Your task to perform on an android device: Search for Italian restaurants on Maps Image 0: 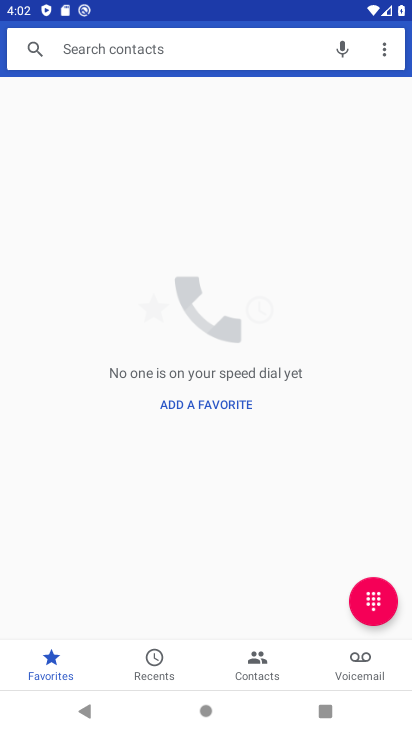
Step 0: press home button
Your task to perform on an android device: Search for Italian restaurants on Maps Image 1: 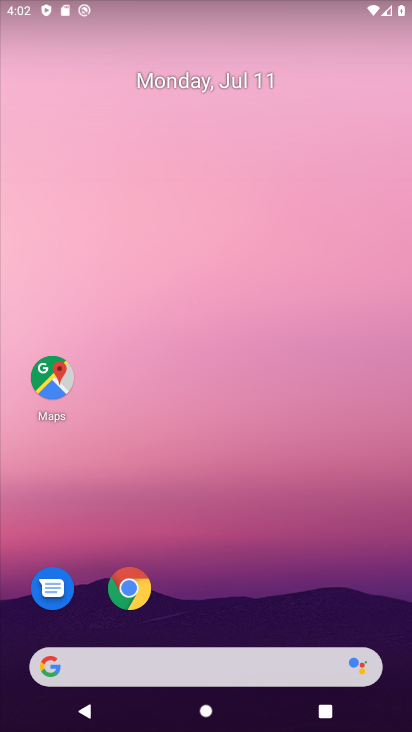
Step 1: click (62, 386)
Your task to perform on an android device: Search for Italian restaurants on Maps Image 2: 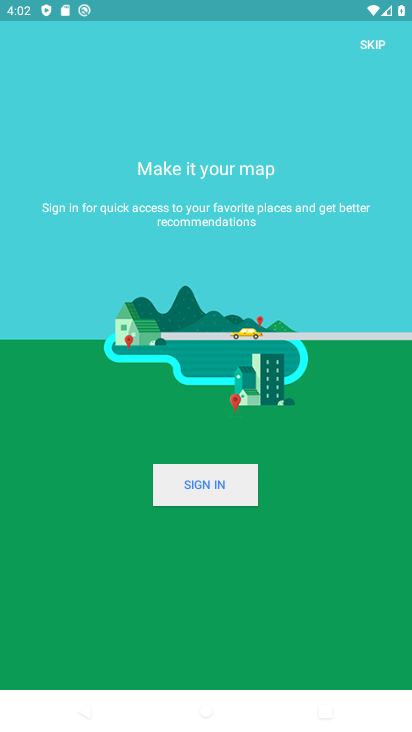
Step 2: click (371, 42)
Your task to perform on an android device: Search for Italian restaurants on Maps Image 3: 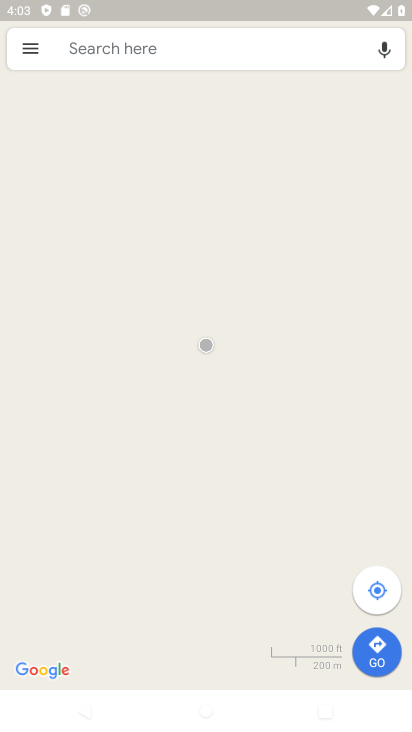
Step 3: click (292, 46)
Your task to perform on an android device: Search for Italian restaurants on Maps Image 4: 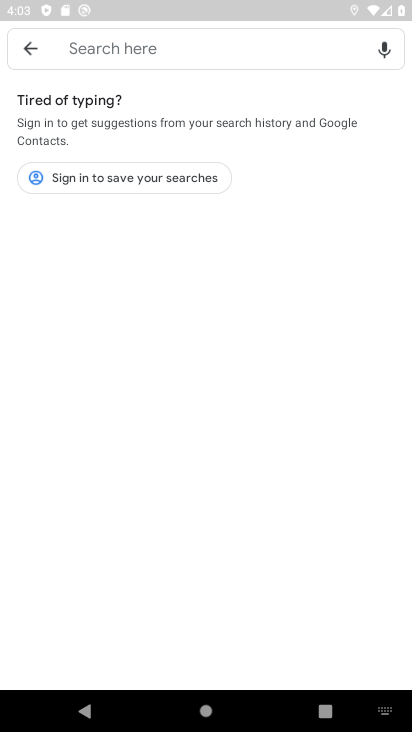
Step 4: type "italian restaurants"
Your task to perform on an android device: Search for Italian restaurants on Maps Image 5: 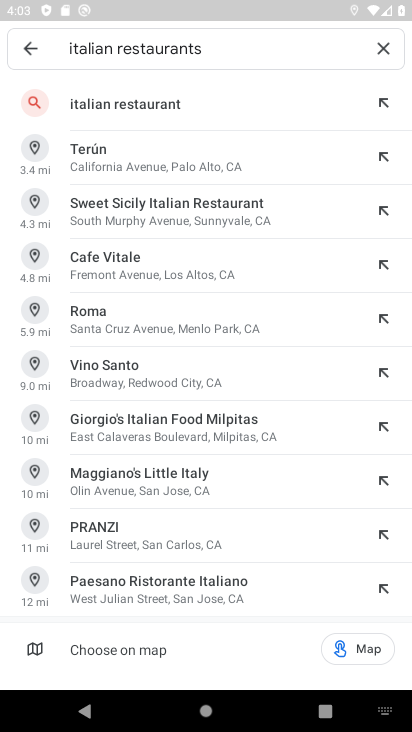
Step 5: click (182, 99)
Your task to perform on an android device: Search for Italian restaurants on Maps Image 6: 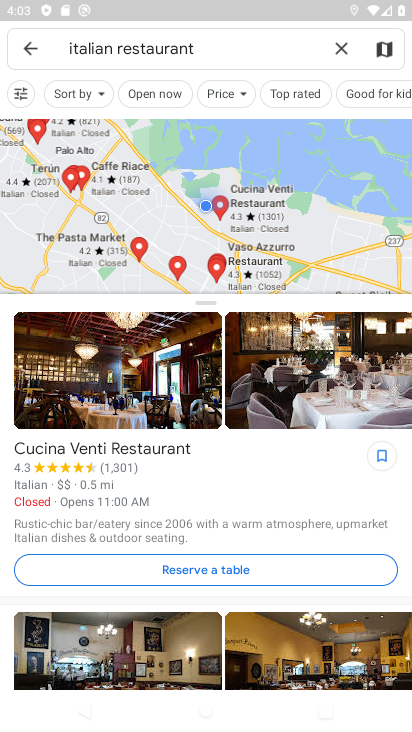
Step 6: task complete